Your task to perform on an android device: Do I have any events this weekend? Image 0: 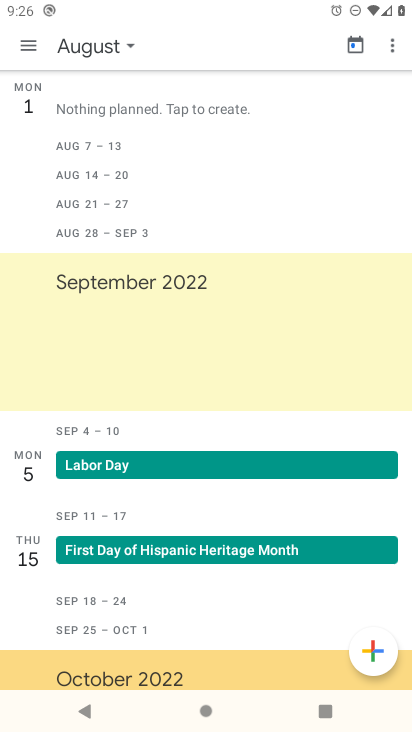
Step 0: click (94, 31)
Your task to perform on an android device: Do I have any events this weekend? Image 1: 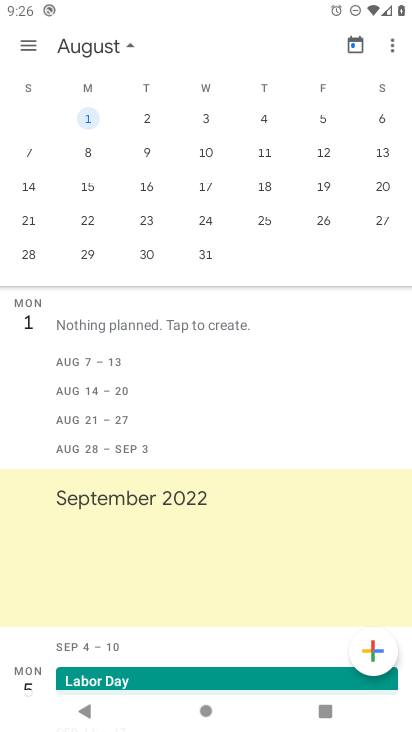
Step 1: drag from (16, 128) to (344, 270)
Your task to perform on an android device: Do I have any events this weekend? Image 2: 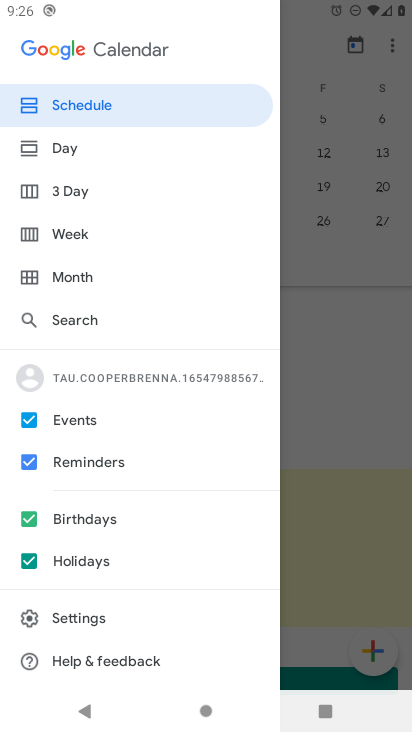
Step 2: click (393, 343)
Your task to perform on an android device: Do I have any events this weekend? Image 3: 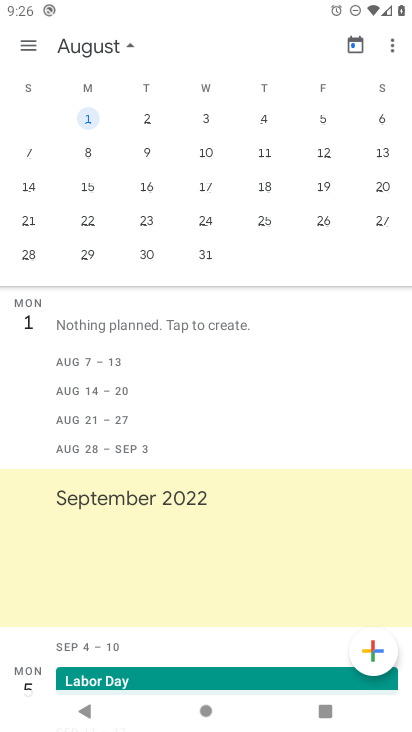
Step 3: drag from (10, 132) to (271, 122)
Your task to perform on an android device: Do I have any events this weekend? Image 4: 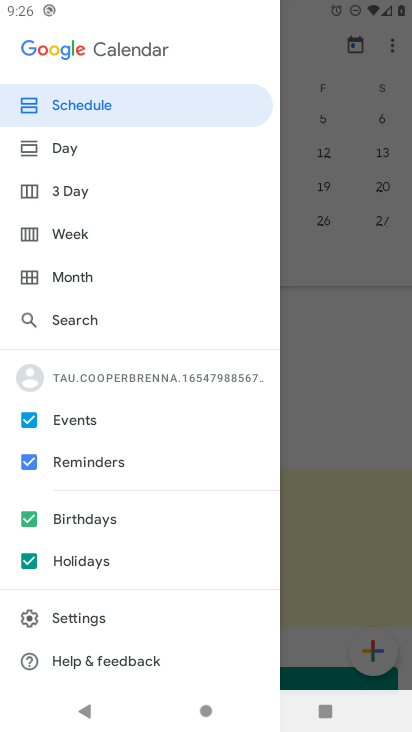
Step 4: click (296, 295)
Your task to perform on an android device: Do I have any events this weekend? Image 5: 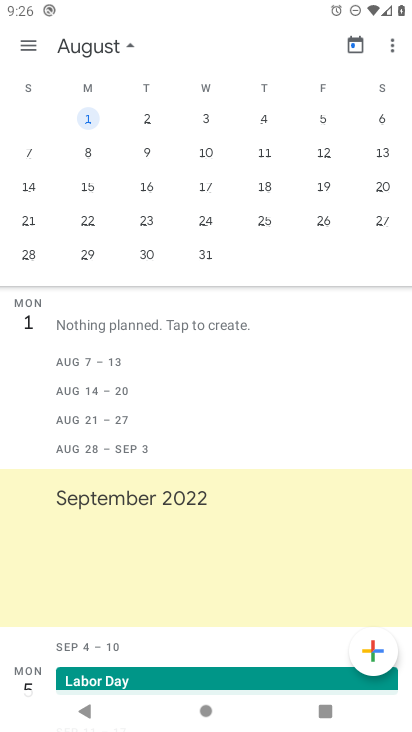
Step 5: task complete